Your task to perform on an android device: Turn off the flashlight Image 0: 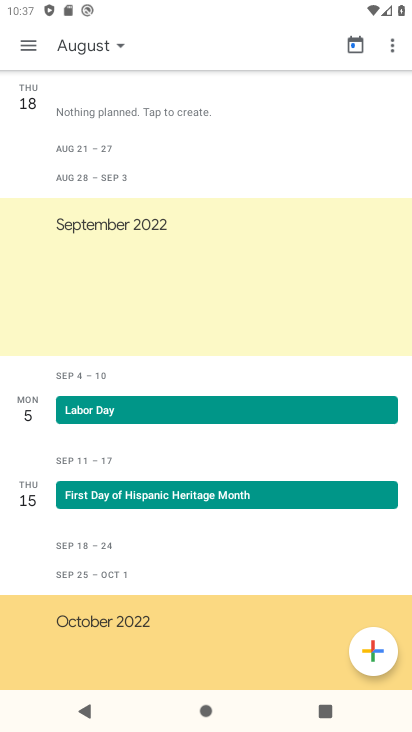
Step 0: drag from (201, 485) to (235, 252)
Your task to perform on an android device: Turn off the flashlight Image 1: 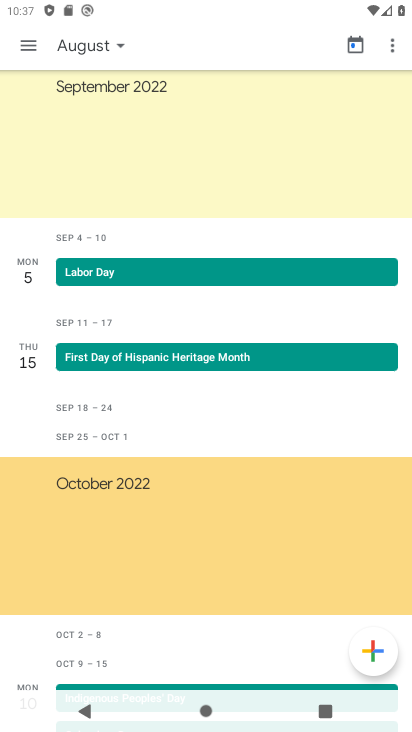
Step 1: press home button
Your task to perform on an android device: Turn off the flashlight Image 2: 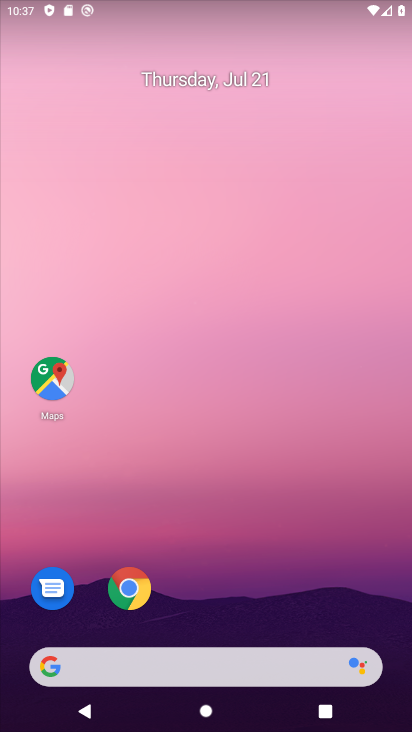
Step 2: drag from (226, 597) to (260, 291)
Your task to perform on an android device: Turn off the flashlight Image 3: 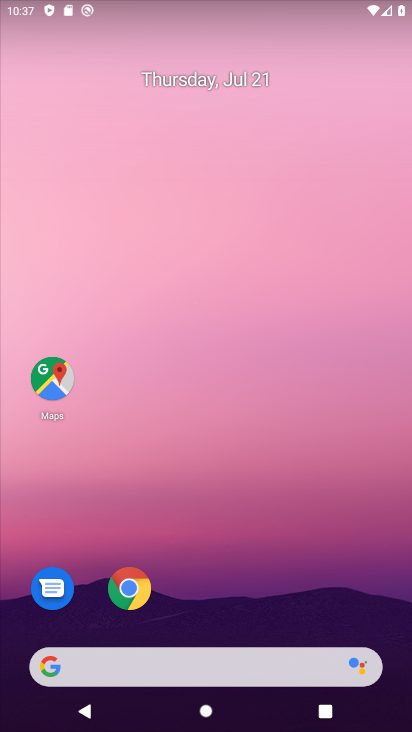
Step 3: drag from (241, 611) to (229, 39)
Your task to perform on an android device: Turn off the flashlight Image 4: 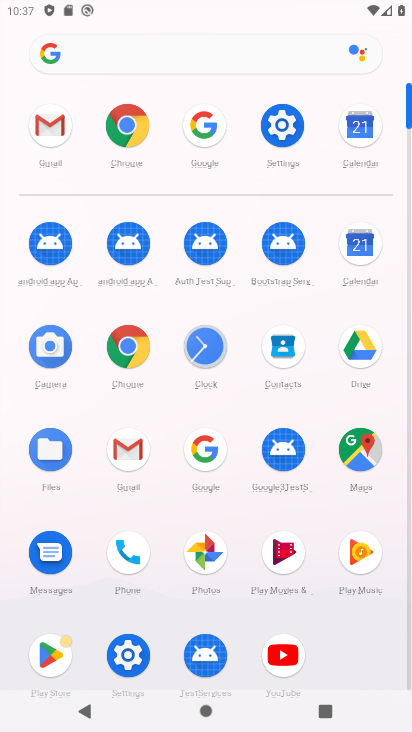
Step 4: click (284, 115)
Your task to perform on an android device: Turn off the flashlight Image 5: 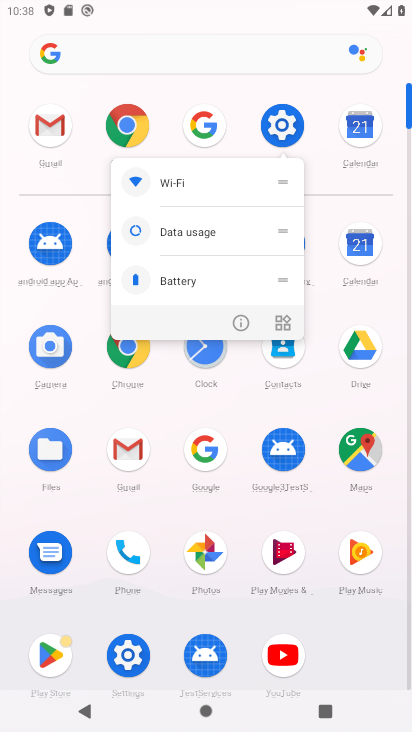
Step 5: click (240, 318)
Your task to perform on an android device: Turn off the flashlight Image 6: 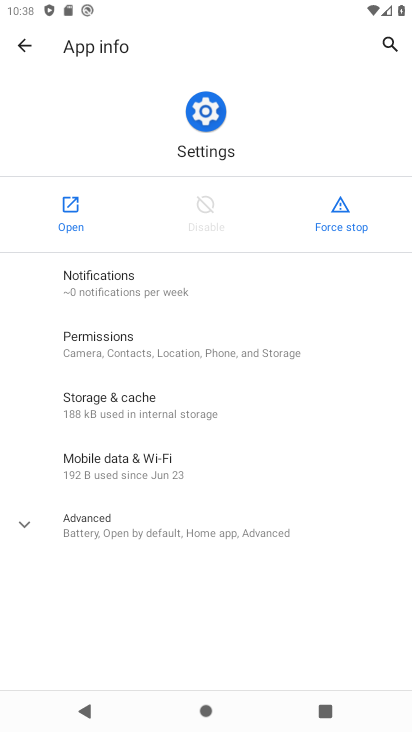
Step 6: click (61, 202)
Your task to perform on an android device: Turn off the flashlight Image 7: 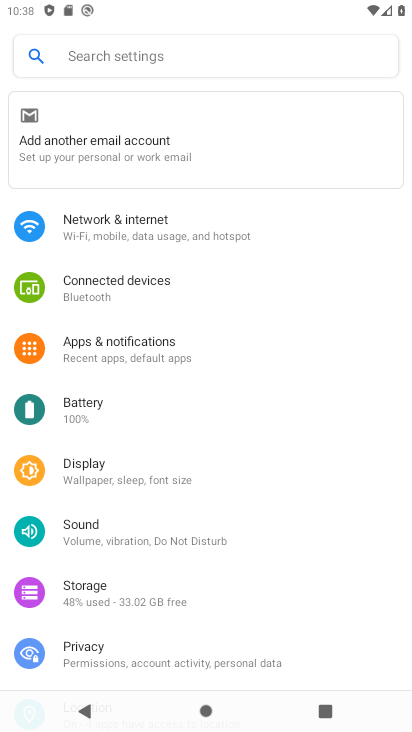
Step 7: click (99, 56)
Your task to perform on an android device: Turn off the flashlight Image 8: 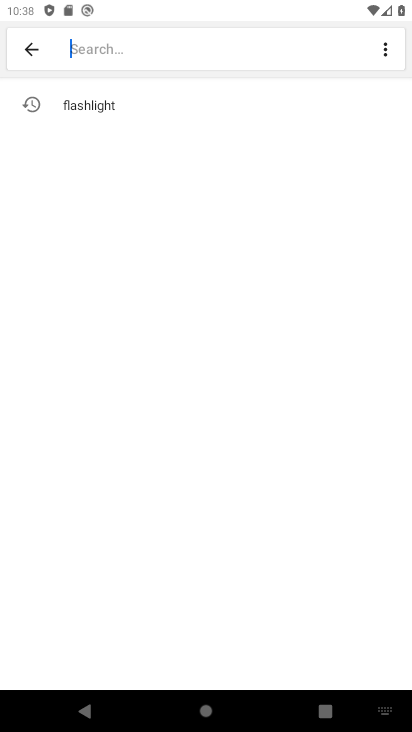
Step 8: click (109, 96)
Your task to perform on an android device: Turn off the flashlight Image 9: 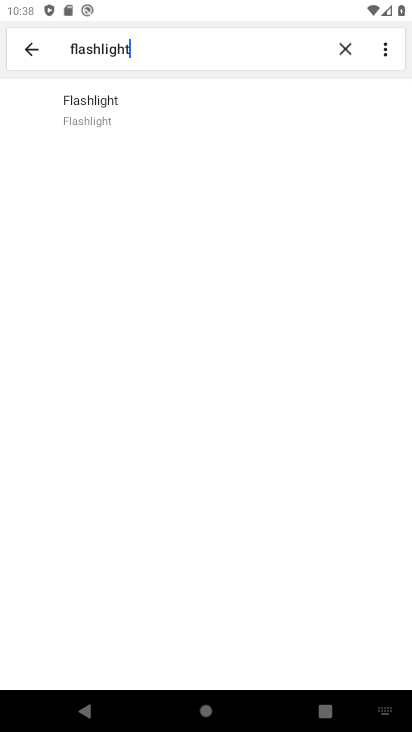
Step 9: task complete